Your task to perform on an android device: check storage Image 0: 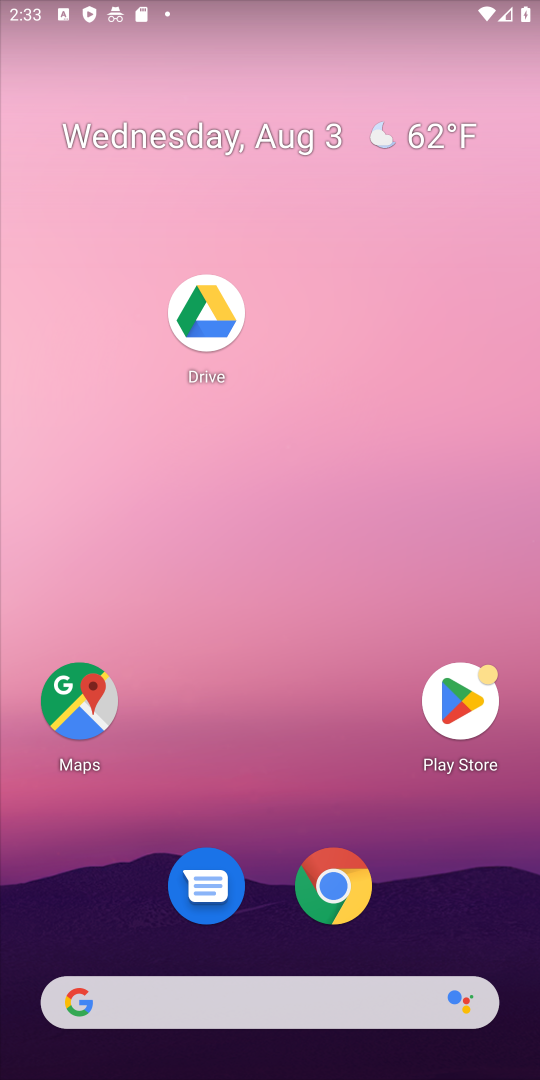
Step 0: drag from (400, 428) to (426, 11)
Your task to perform on an android device: check storage Image 1: 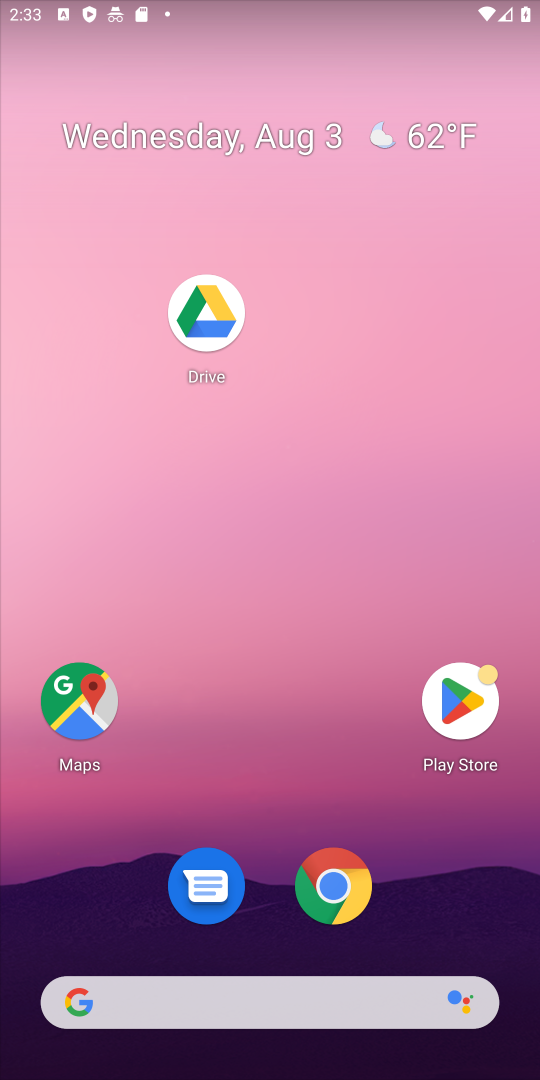
Step 1: drag from (324, 978) to (352, 1)
Your task to perform on an android device: check storage Image 2: 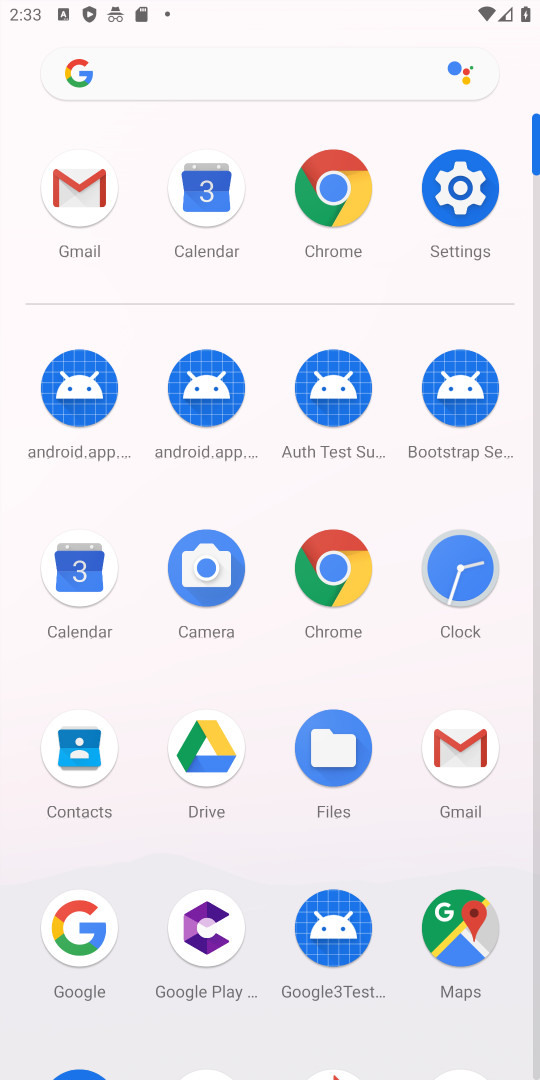
Step 2: click (470, 175)
Your task to perform on an android device: check storage Image 3: 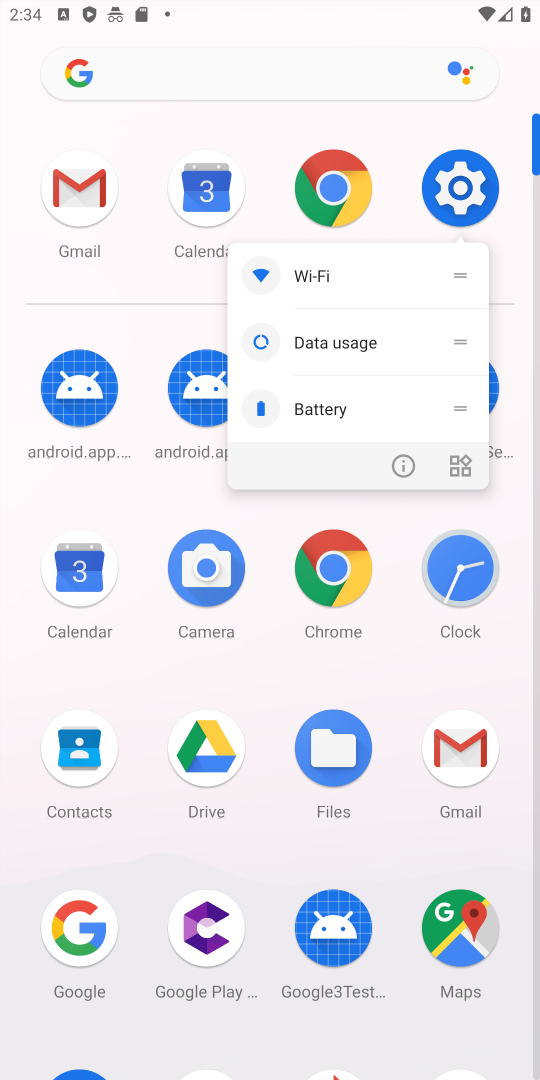
Step 3: click (453, 169)
Your task to perform on an android device: check storage Image 4: 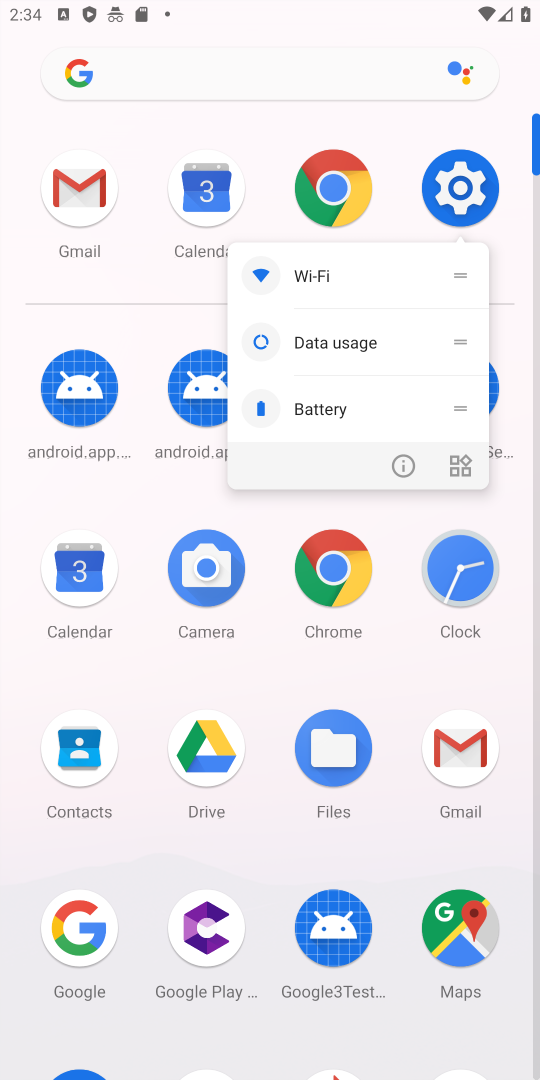
Step 4: click (464, 162)
Your task to perform on an android device: check storage Image 5: 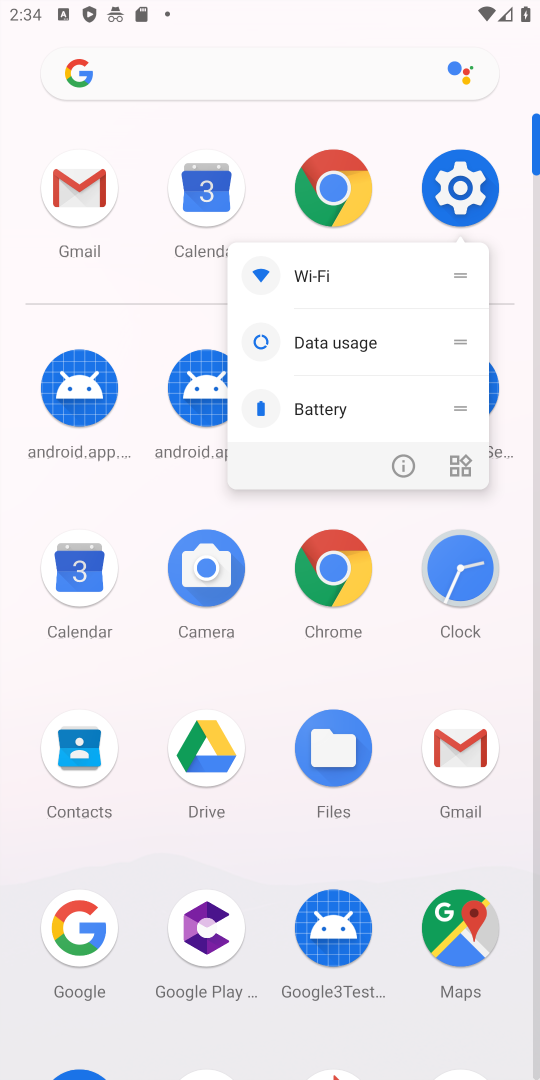
Step 5: click (462, 197)
Your task to perform on an android device: check storage Image 6: 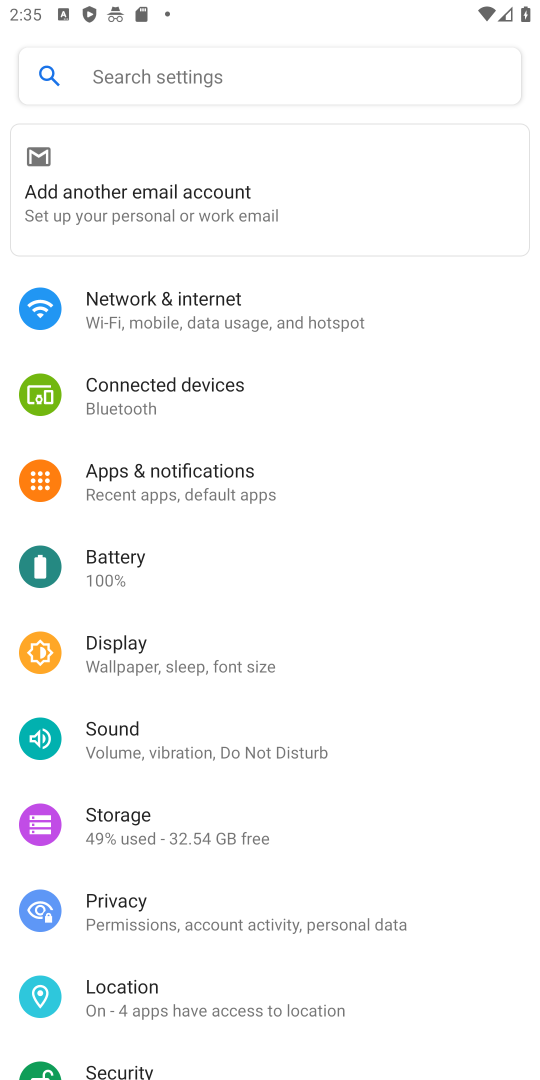
Step 6: click (164, 817)
Your task to perform on an android device: check storage Image 7: 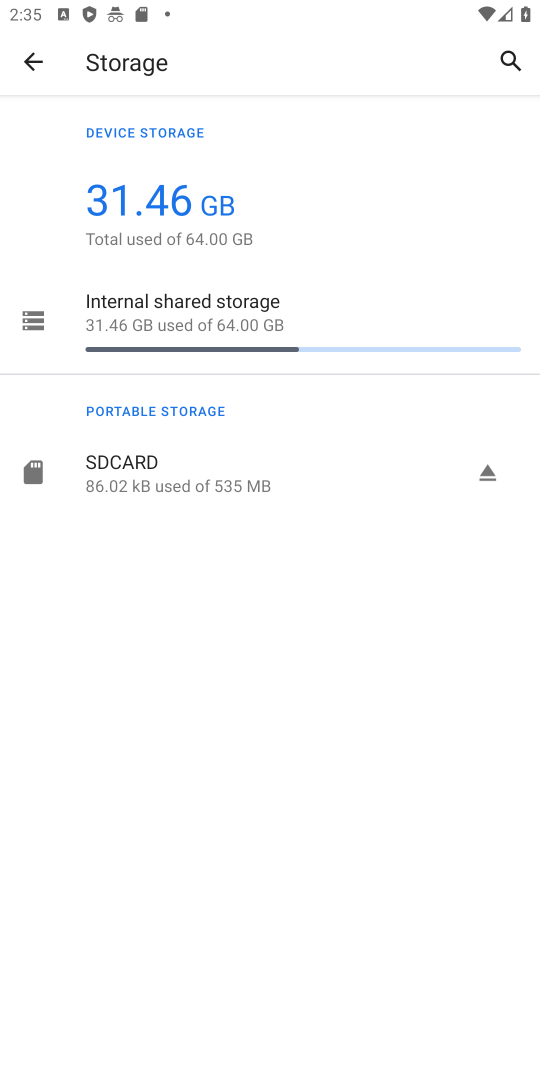
Step 7: task complete